Your task to perform on an android device: add a contact Image 0: 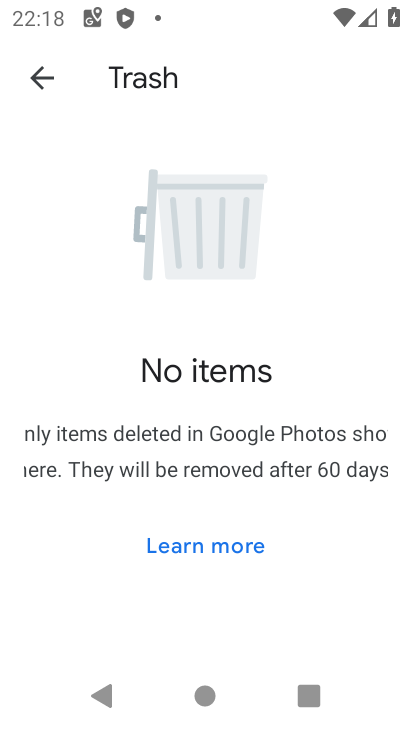
Step 0: press home button
Your task to perform on an android device: add a contact Image 1: 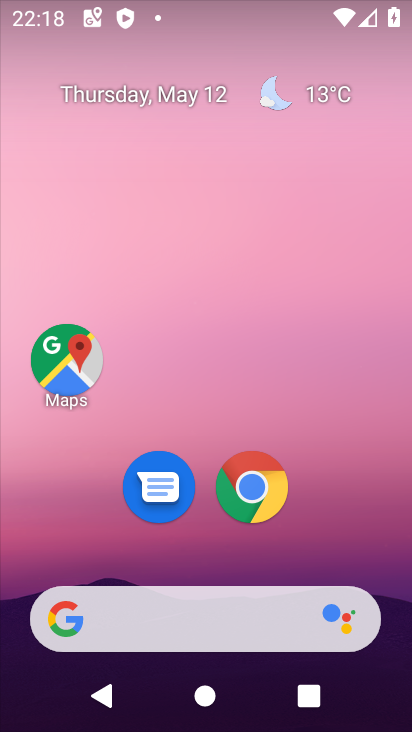
Step 1: drag from (207, 546) to (221, 233)
Your task to perform on an android device: add a contact Image 2: 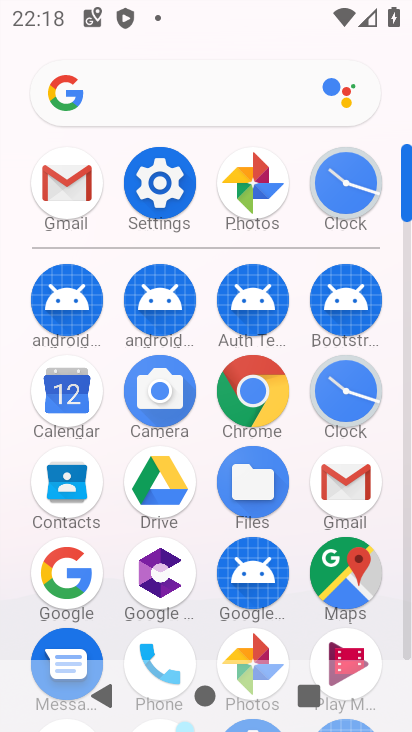
Step 2: click (58, 491)
Your task to perform on an android device: add a contact Image 3: 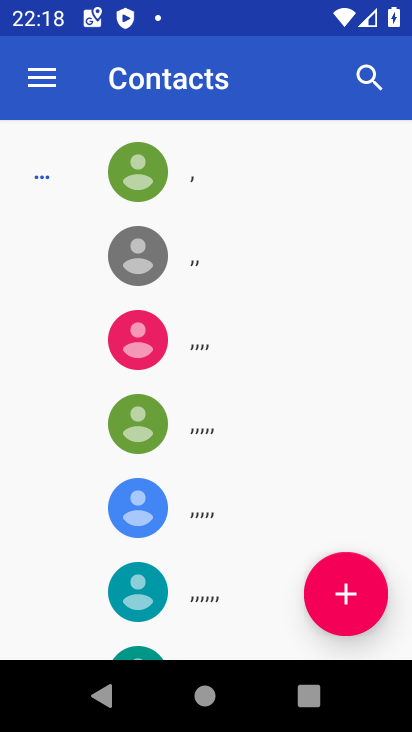
Step 3: click (386, 586)
Your task to perform on an android device: add a contact Image 4: 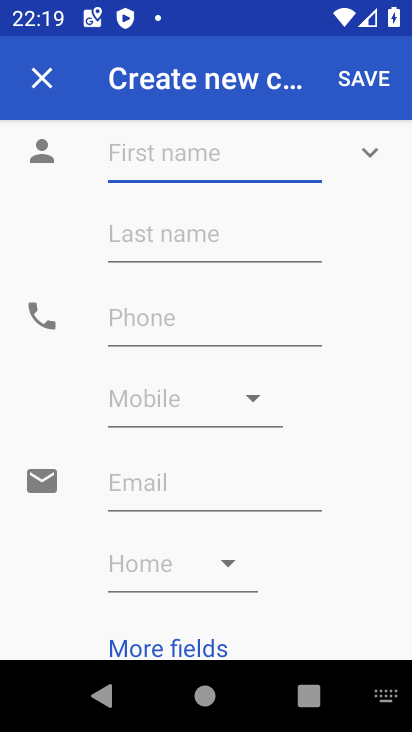
Step 4: type "isi"
Your task to perform on an android device: add a contact Image 5: 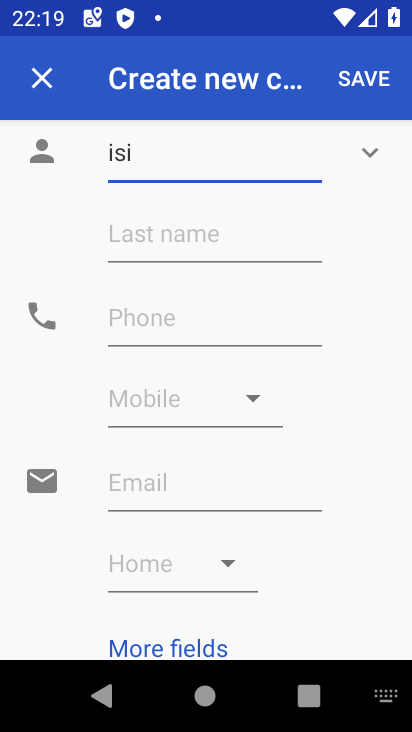
Step 5: click (150, 308)
Your task to perform on an android device: add a contact Image 6: 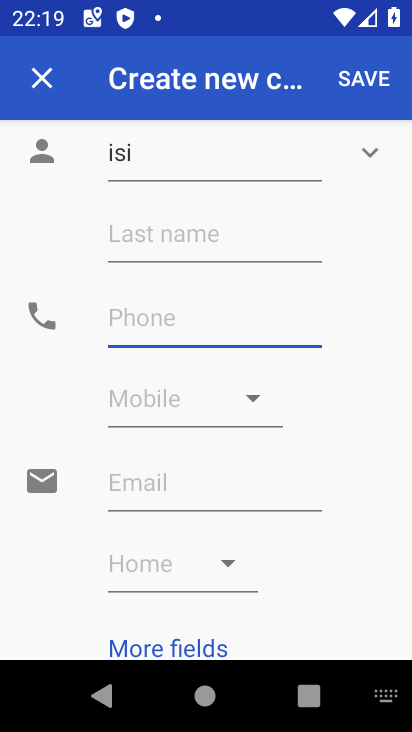
Step 6: type "9876567899"
Your task to perform on an android device: add a contact Image 7: 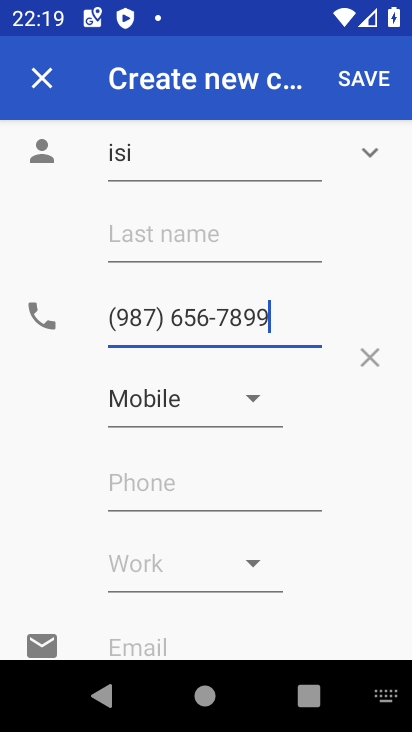
Step 7: click (367, 104)
Your task to perform on an android device: add a contact Image 8: 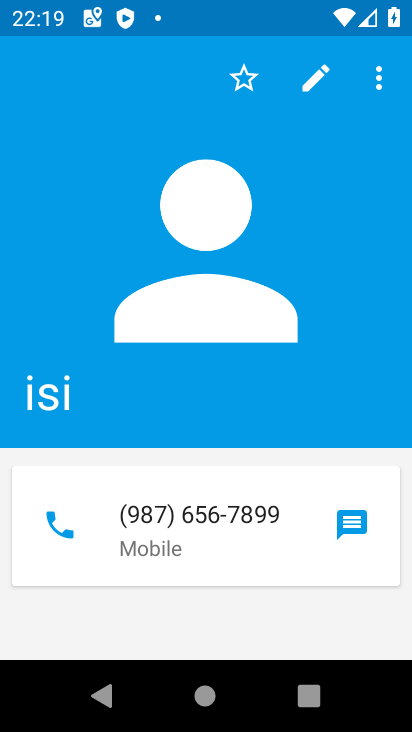
Step 8: task complete